Your task to perform on an android device: turn off translation in the chrome app Image 0: 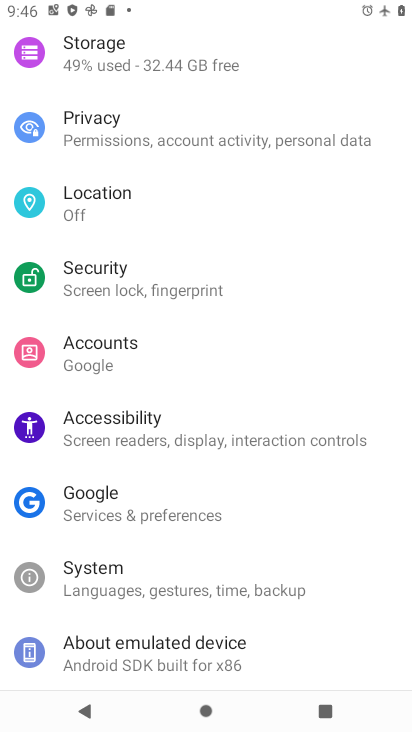
Step 0: drag from (182, 578) to (116, 90)
Your task to perform on an android device: turn off translation in the chrome app Image 1: 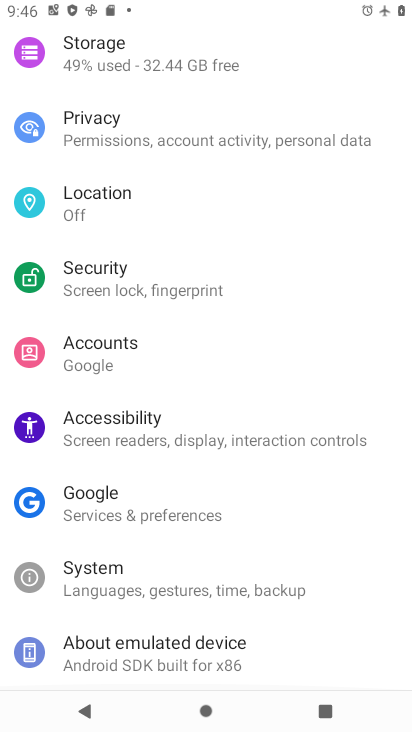
Step 1: drag from (126, 125) to (203, 668)
Your task to perform on an android device: turn off translation in the chrome app Image 2: 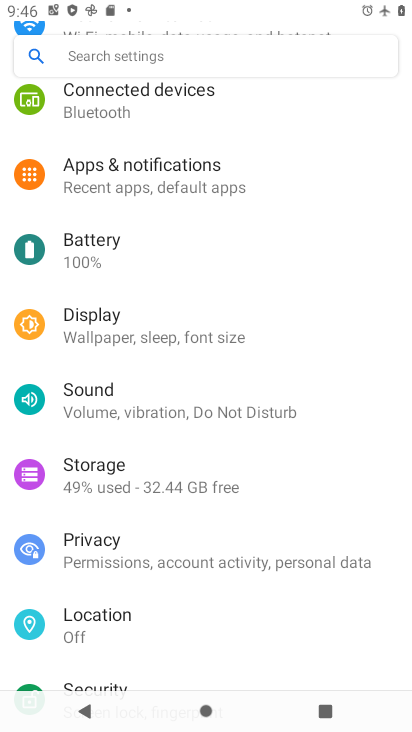
Step 2: drag from (125, 144) to (244, 718)
Your task to perform on an android device: turn off translation in the chrome app Image 3: 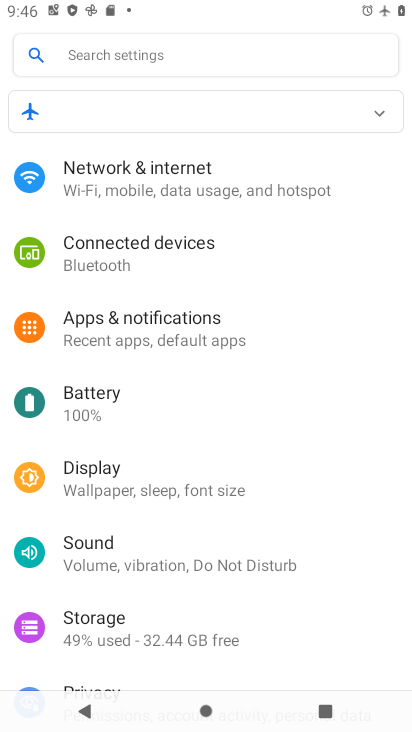
Step 3: press home button
Your task to perform on an android device: turn off translation in the chrome app Image 4: 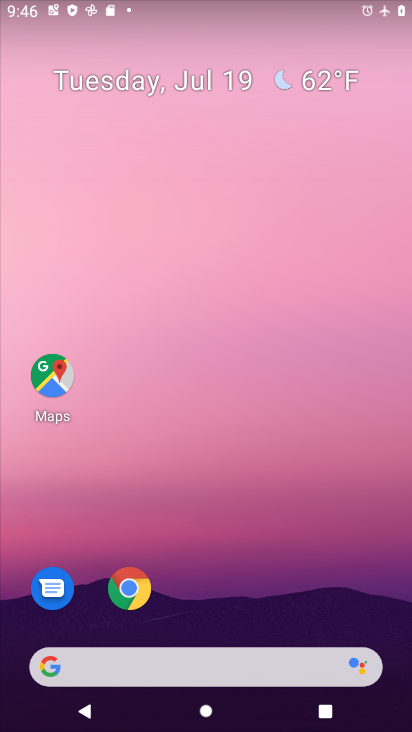
Step 4: drag from (259, 638) to (239, 124)
Your task to perform on an android device: turn off translation in the chrome app Image 5: 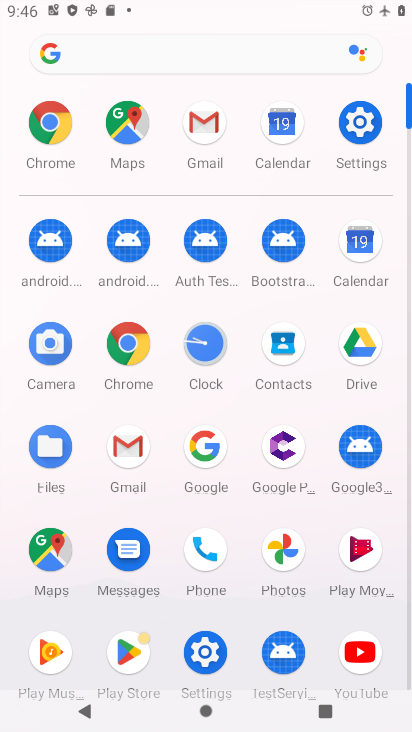
Step 5: click (37, 121)
Your task to perform on an android device: turn off translation in the chrome app Image 6: 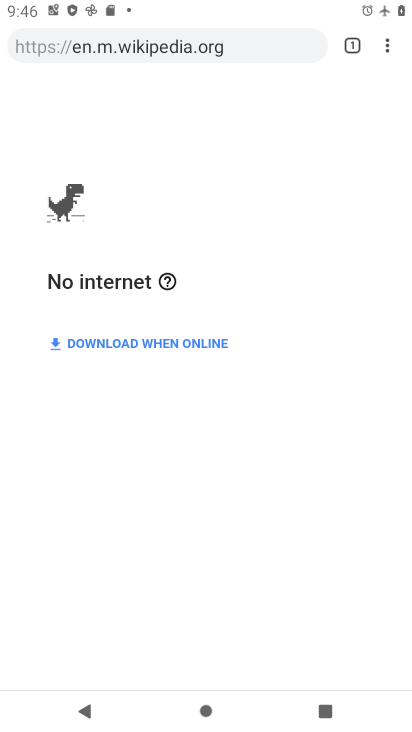
Step 6: drag from (381, 55) to (269, 508)
Your task to perform on an android device: turn off translation in the chrome app Image 7: 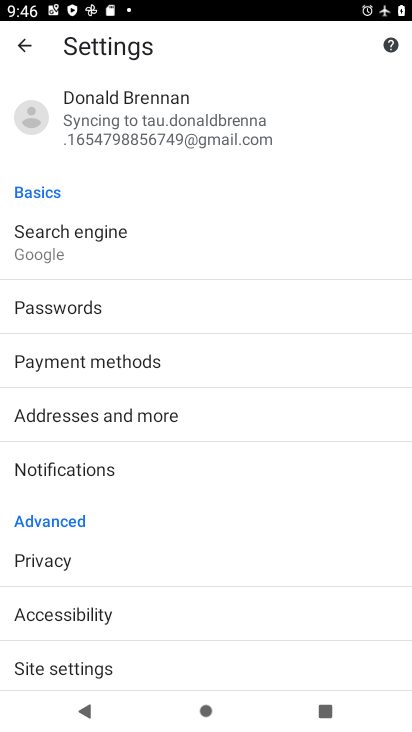
Step 7: drag from (168, 499) to (209, 137)
Your task to perform on an android device: turn off translation in the chrome app Image 8: 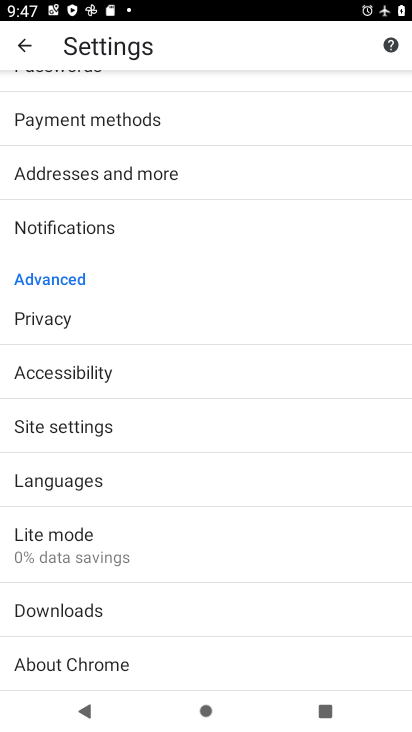
Step 8: click (193, 480)
Your task to perform on an android device: turn off translation in the chrome app Image 9: 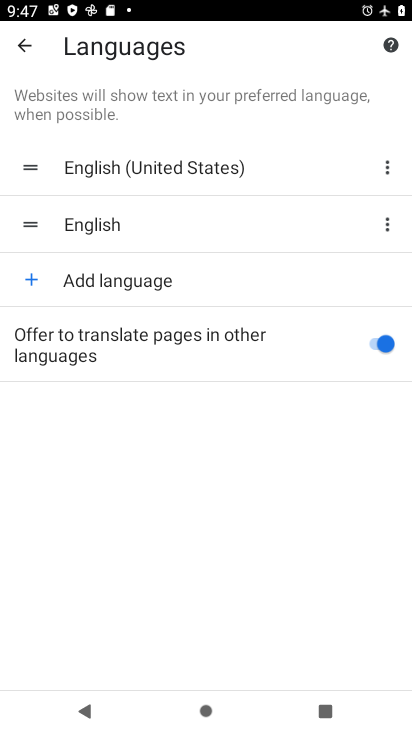
Step 9: click (385, 337)
Your task to perform on an android device: turn off translation in the chrome app Image 10: 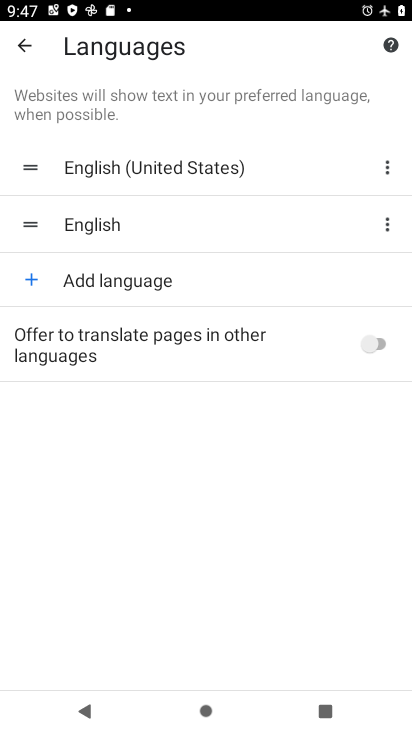
Step 10: task complete